Your task to perform on an android device: What is the news today? Image 0: 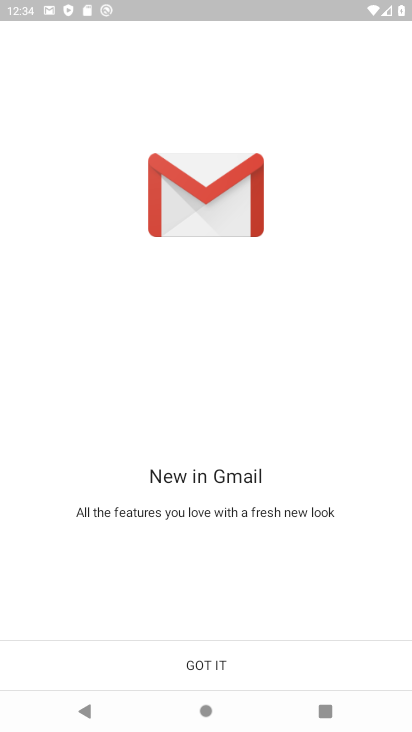
Step 0: press home button
Your task to perform on an android device: What is the news today? Image 1: 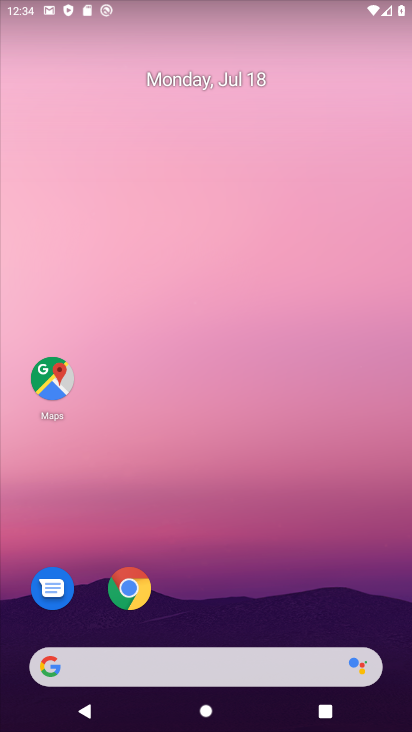
Step 1: click (225, 676)
Your task to perform on an android device: What is the news today? Image 2: 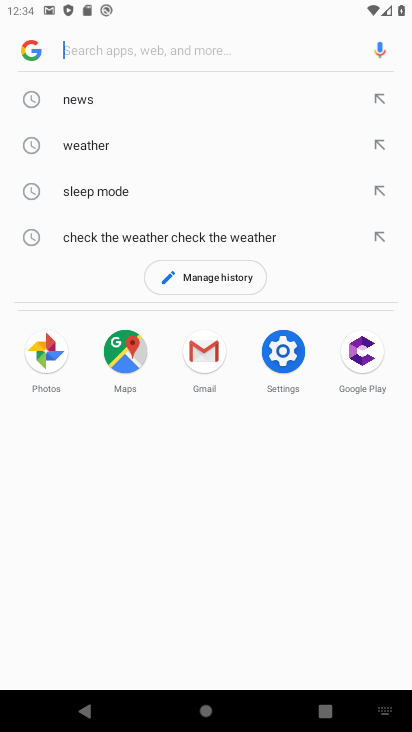
Step 2: type "What is the news today?"
Your task to perform on an android device: What is the news today? Image 3: 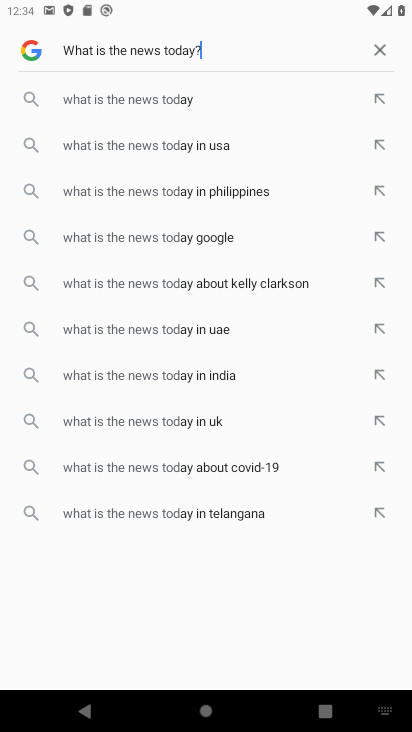
Step 3: press enter
Your task to perform on an android device: What is the news today? Image 4: 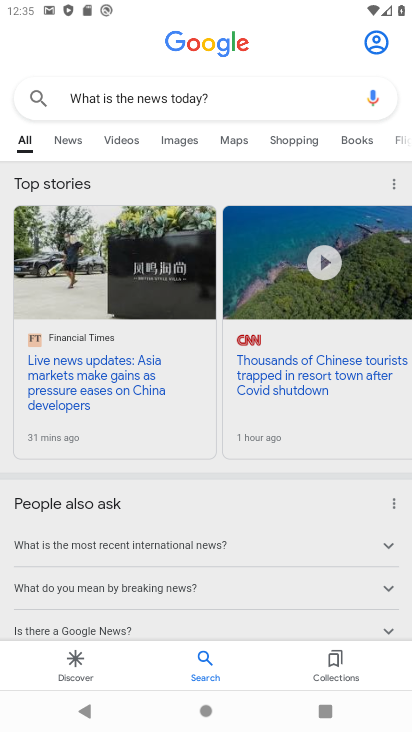
Step 4: task complete